Your task to perform on an android device: Go to calendar. Show me events next week Image 0: 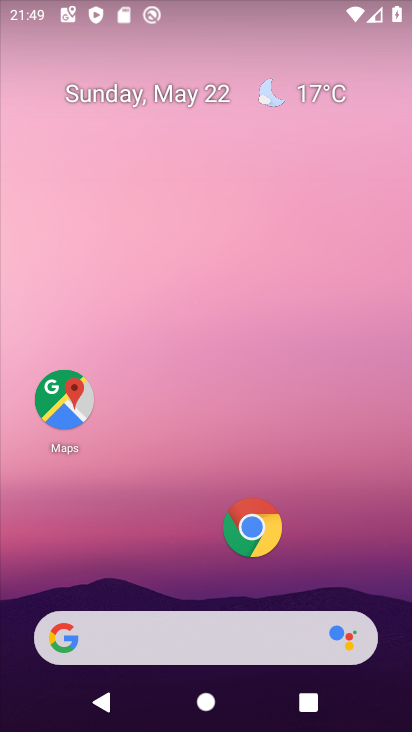
Step 0: drag from (161, 554) to (9, 8)
Your task to perform on an android device: Go to calendar. Show me events next week Image 1: 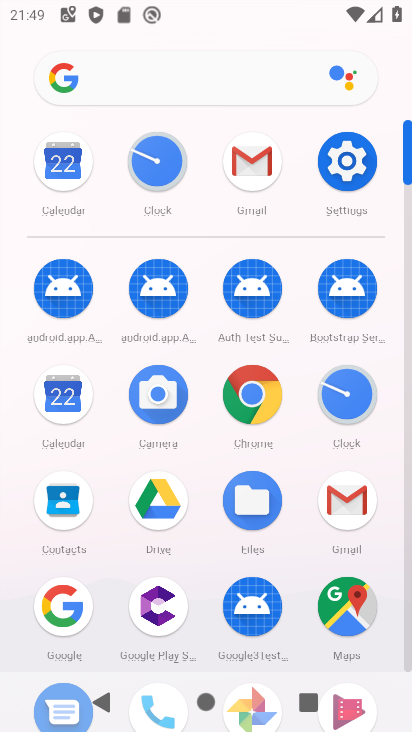
Step 1: click (64, 405)
Your task to perform on an android device: Go to calendar. Show me events next week Image 2: 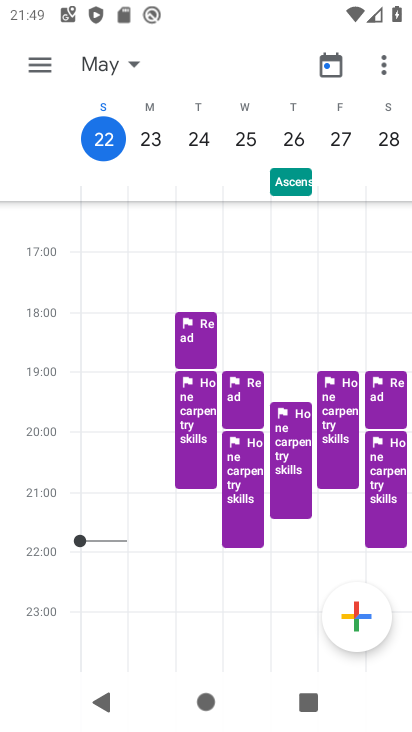
Step 2: click (135, 60)
Your task to perform on an android device: Go to calendar. Show me events next week Image 3: 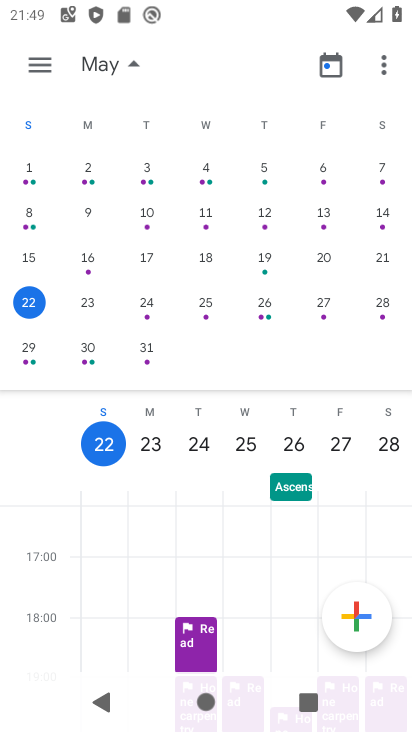
Step 3: click (29, 345)
Your task to perform on an android device: Go to calendar. Show me events next week Image 4: 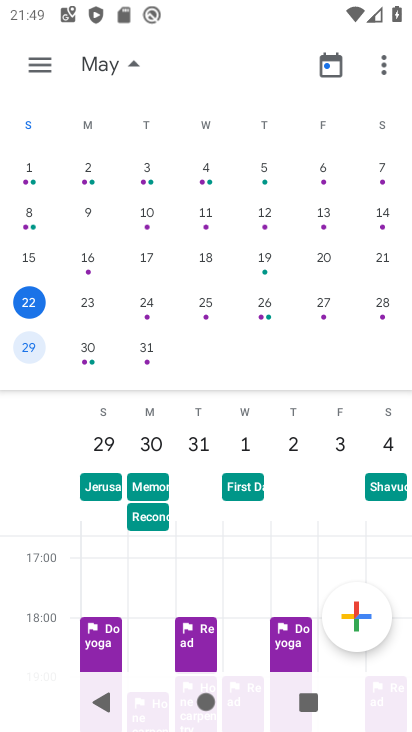
Step 4: task complete